Your task to perform on an android device: Open Google Chrome and click the shortcut for Amazon.com Image 0: 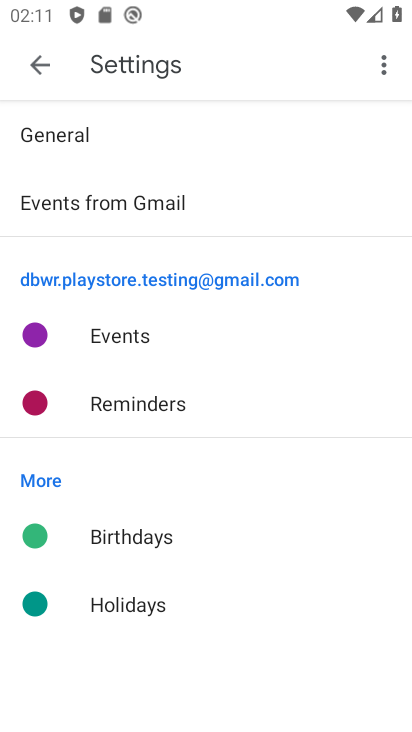
Step 0: press home button
Your task to perform on an android device: Open Google Chrome and click the shortcut for Amazon.com Image 1: 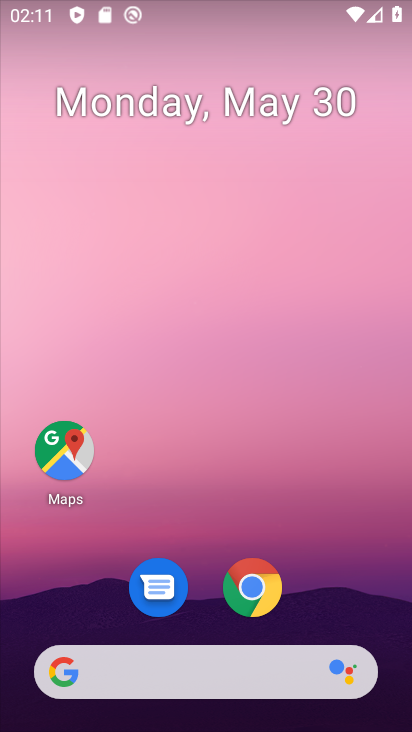
Step 1: click (252, 589)
Your task to perform on an android device: Open Google Chrome and click the shortcut for Amazon.com Image 2: 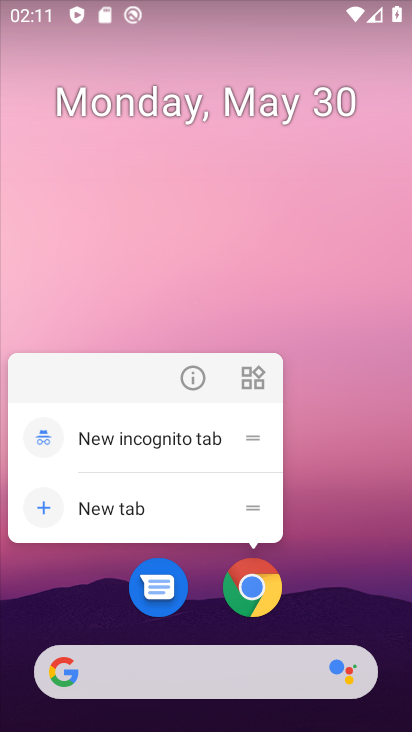
Step 2: click (254, 576)
Your task to perform on an android device: Open Google Chrome and click the shortcut for Amazon.com Image 3: 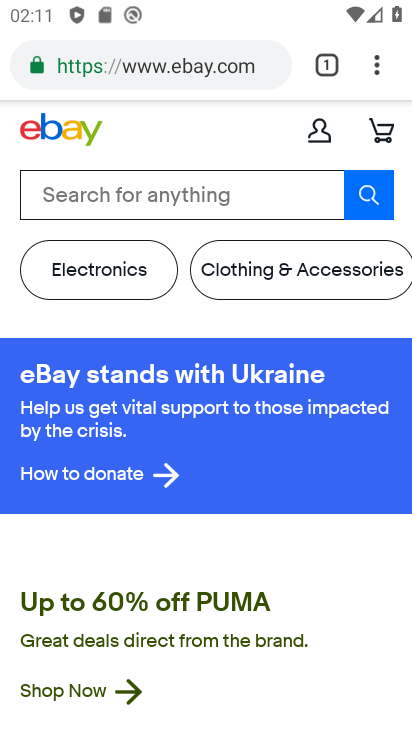
Step 3: click (315, 63)
Your task to perform on an android device: Open Google Chrome and click the shortcut for Amazon.com Image 4: 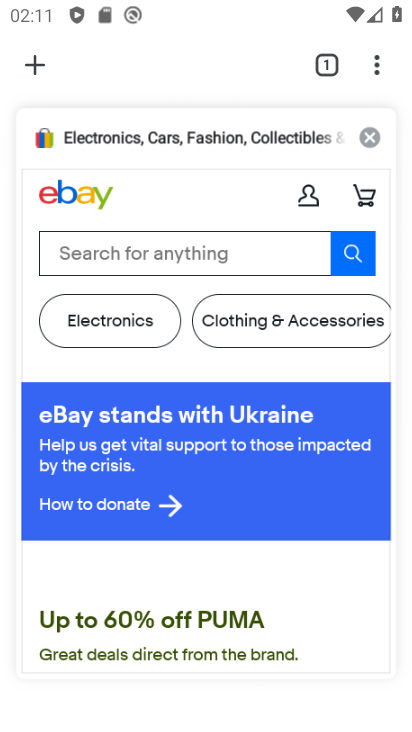
Step 4: click (380, 132)
Your task to perform on an android device: Open Google Chrome and click the shortcut for Amazon.com Image 5: 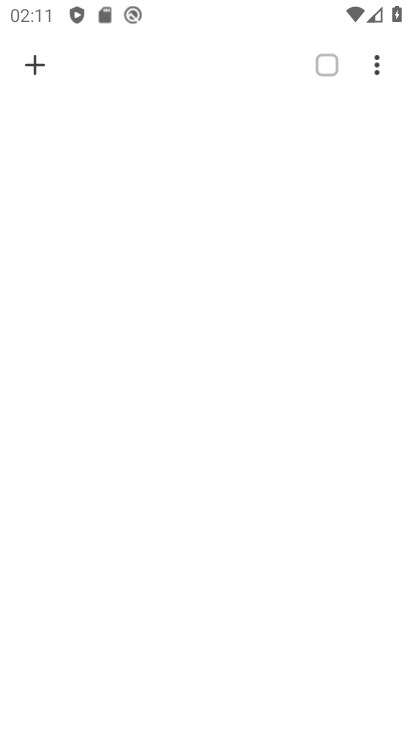
Step 5: click (30, 62)
Your task to perform on an android device: Open Google Chrome and click the shortcut for Amazon.com Image 6: 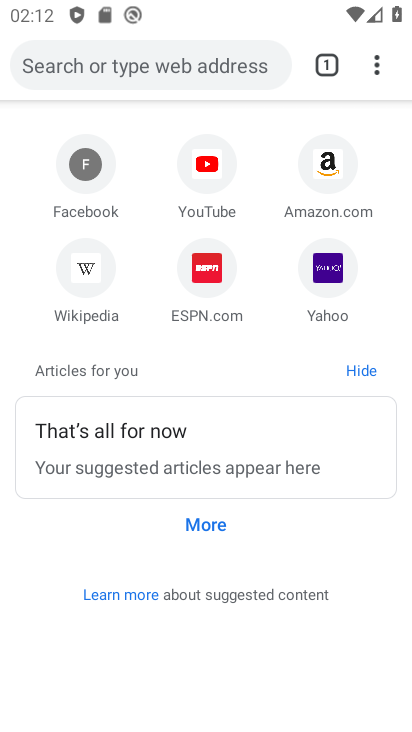
Step 6: click (324, 157)
Your task to perform on an android device: Open Google Chrome and click the shortcut for Amazon.com Image 7: 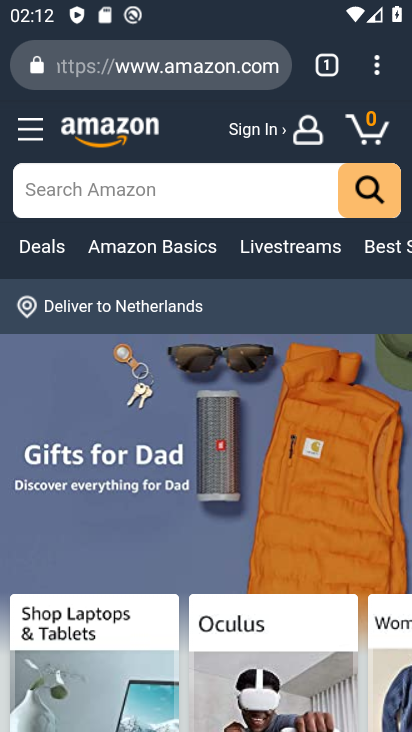
Step 7: task complete